Your task to perform on an android device: Open Google Maps Image 0: 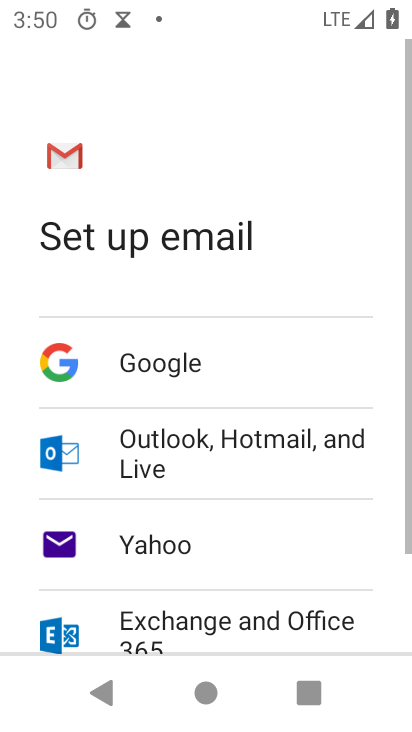
Step 0: press home button
Your task to perform on an android device: Open Google Maps Image 1: 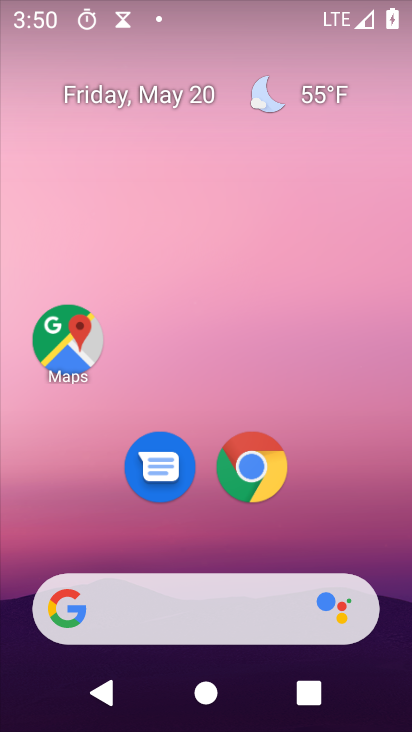
Step 1: click (69, 340)
Your task to perform on an android device: Open Google Maps Image 2: 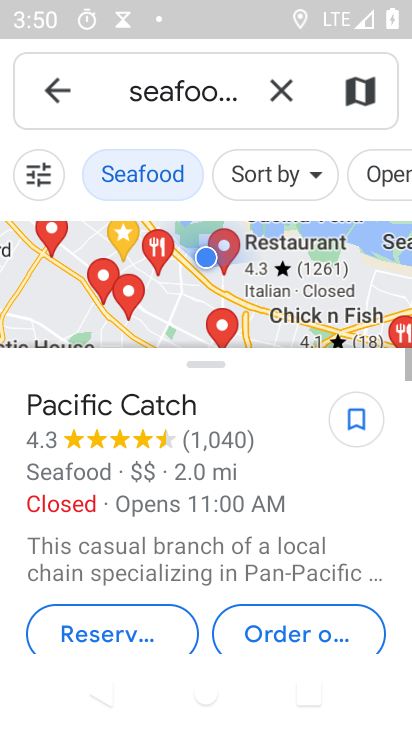
Step 2: click (47, 96)
Your task to perform on an android device: Open Google Maps Image 3: 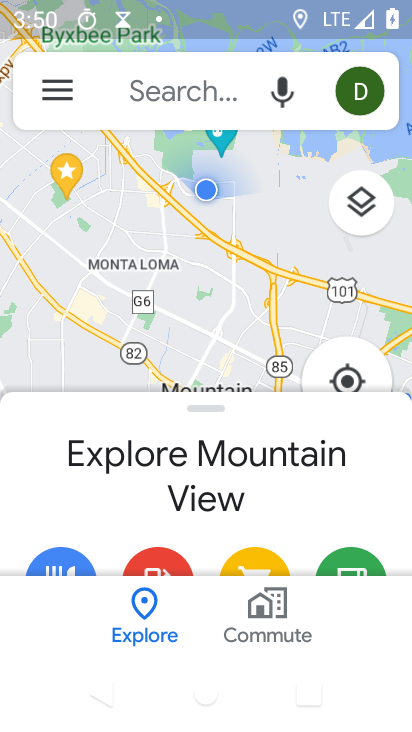
Step 3: task complete